Your task to perform on an android device: clear all cookies in the chrome app Image 0: 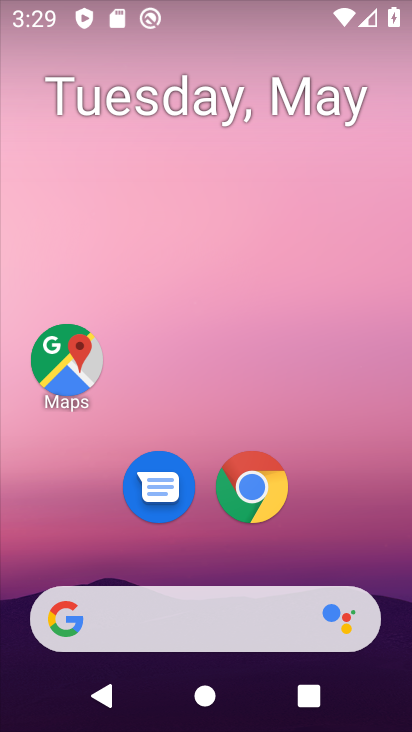
Step 0: click (267, 494)
Your task to perform on an android device: clear all cookies in the chrome app Image 1: 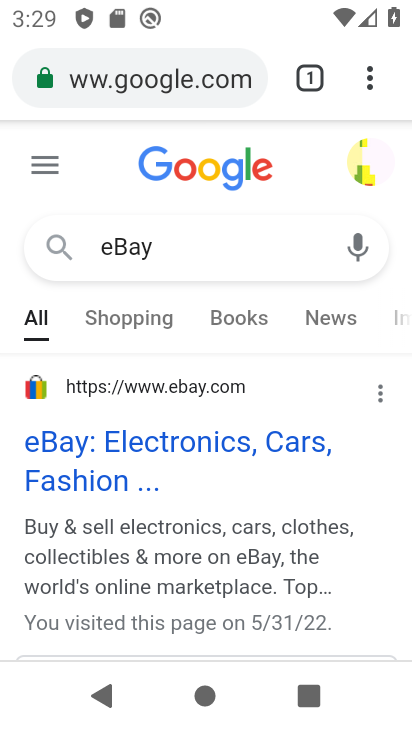
Step 1: click (365, 84)
Your task to perform on an android device: clear all cookies in the chrome app Image 2: 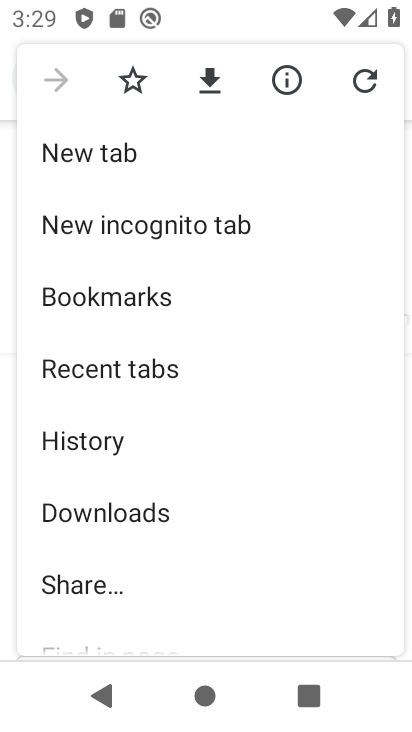
Step 2: drag from (123, 525) to (139, 457)
Your task to perform on an android device: clear all cookies in the chrome app Image 3: 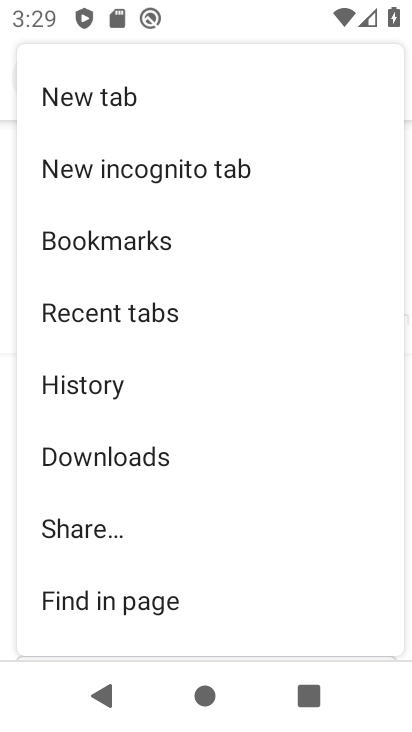
Step 3: click (98, 401)
Your task to perform on an android device: clear all cookies in the chrome app Image 4: 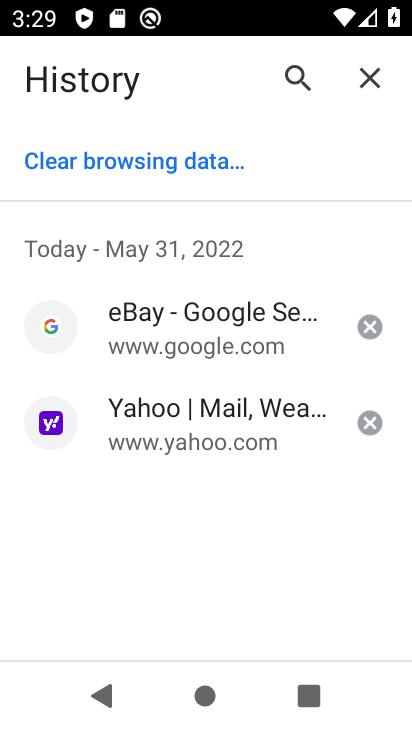
Step 4: click (150, 153)
Your task to perform on an android device: clear all cookies in the chrome app Image 5: 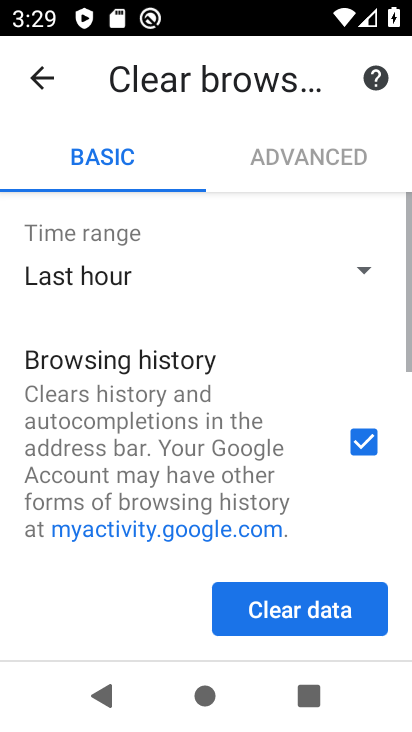
Step 5: click (339, 436)
Your task to perform on an android device: clear all cookies in the chrome app Image 6: 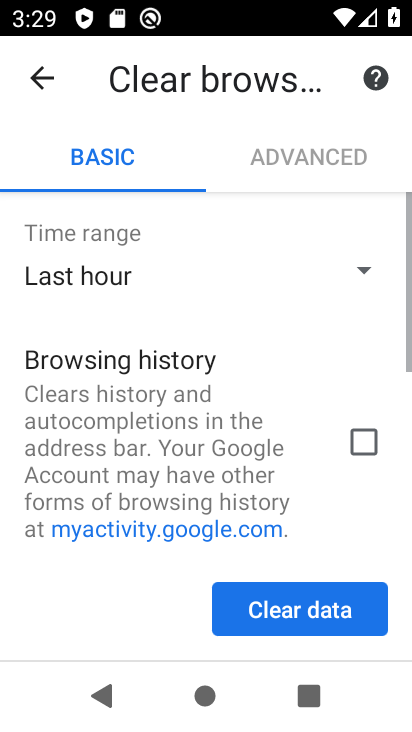
Step 6: drag from (234, 530) to (288, 178)
Your task to perform on an android device: clear all cookies in the chrome app Image 7: 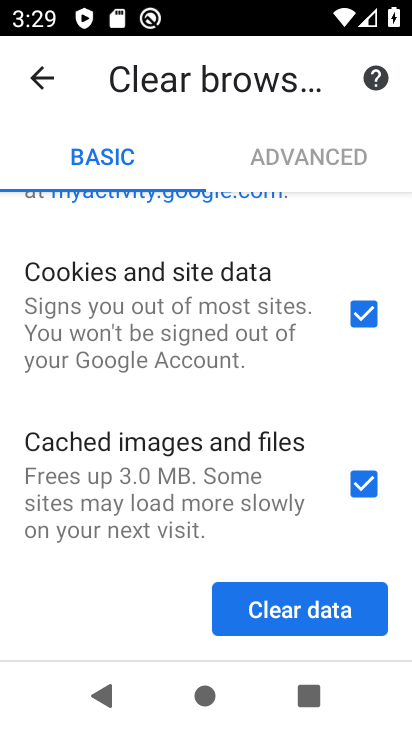
Step 7: drag from (326, 483) to (375, 144)
Your task to perform on an android device: clear all cookies in the chrome app Image 8: 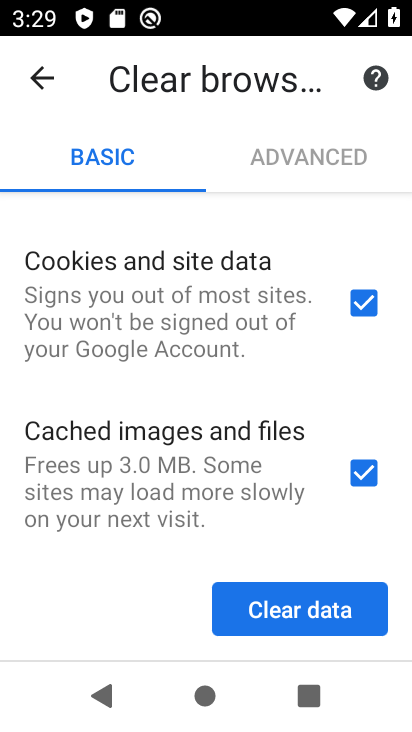
Step 8: click (357, 473)
Your task to perform on an android device: clear all cookies in the chrome app Image 9: 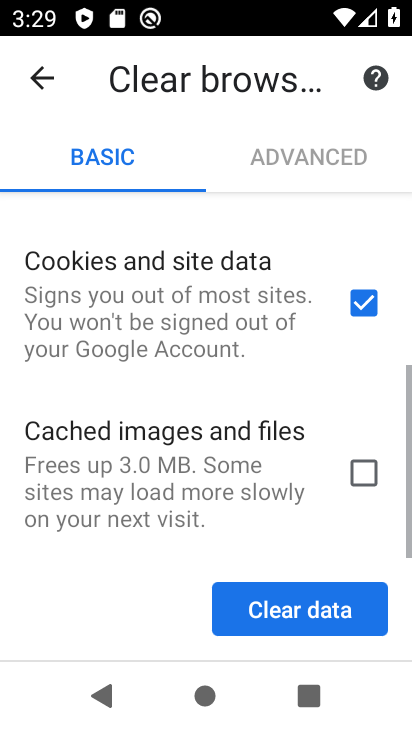
Step 9: click (300, 619)
Your task to perform on an android device: clear all cookies in the chrome app Image 10: 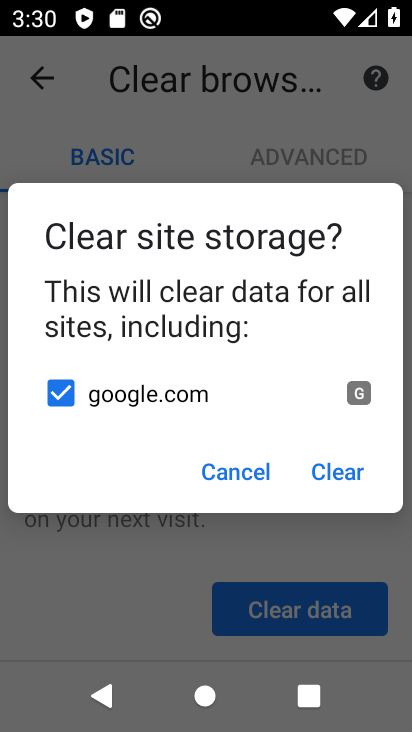
Step 10: click (337, 472)
Your task to perform on an android device: clear all cookies in the chrome app Image 11: 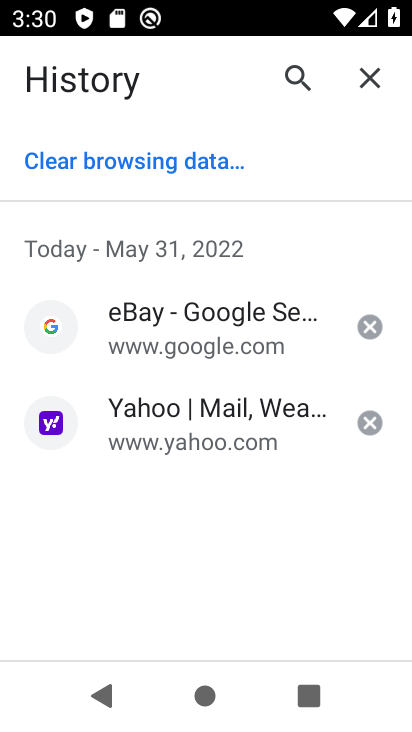
Step 11: task complete